Your task to perform on an android device: star an email in the gmail app Image 0: 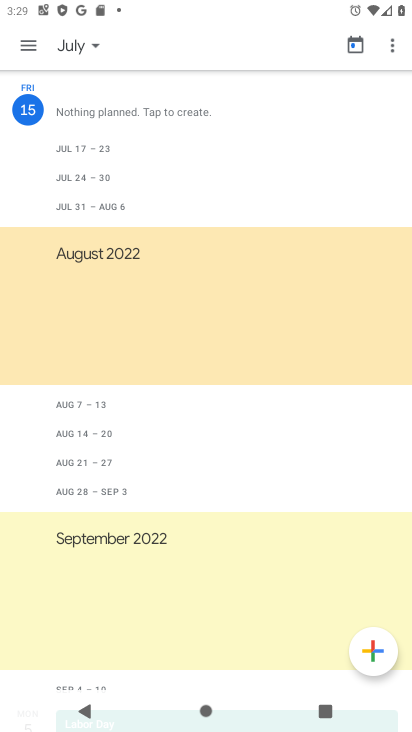
Step 0: press home button
Your task to perform on an android device: star an email in the gmail app Image 1: 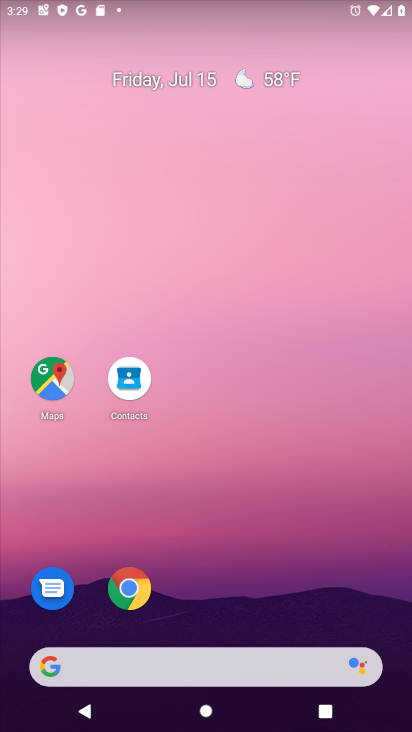
Step 1: drag from (246, 616) to (213, 141)
Your task to perform on an android device: star an email in the gmail app Image 2: 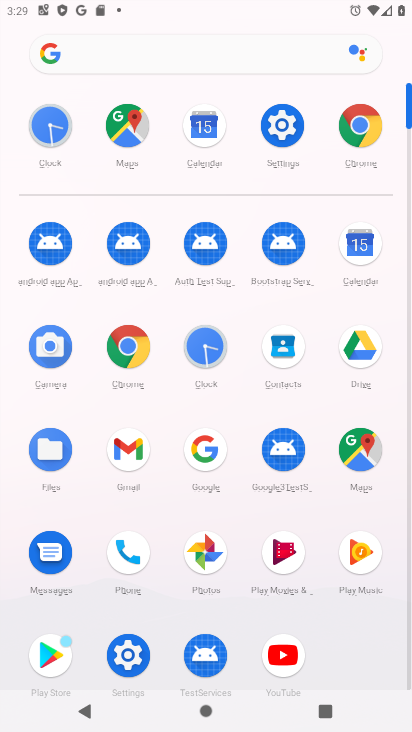
Step 2: click (136, 449)
Your task to perform on an android device: star an email in the gmail app Image 3: 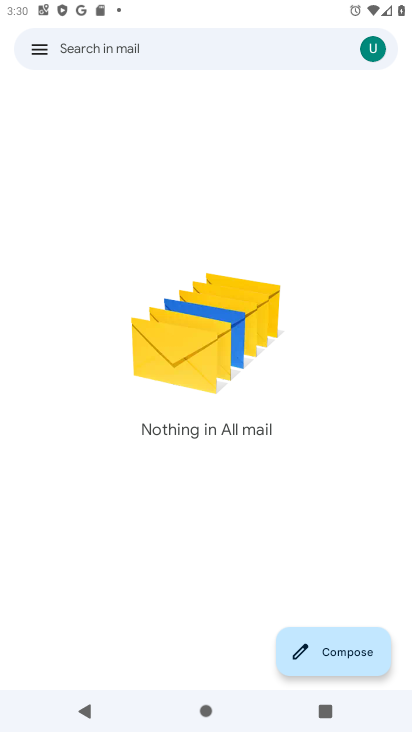
Step 3: click (42, 48)
Your task to perform on an android device: star an email in the gmail app Image 4: 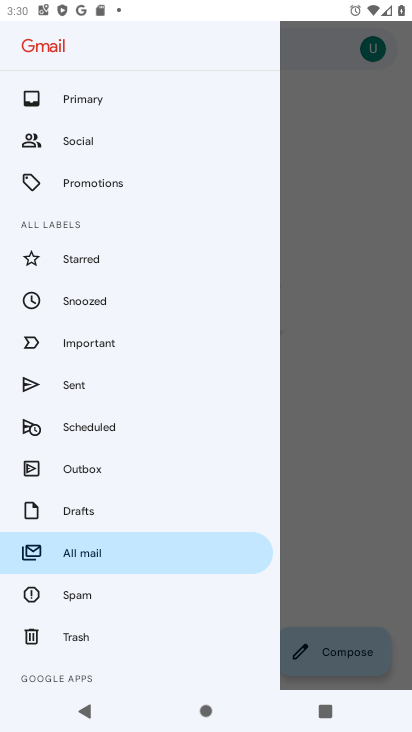
Step 4: click (159, 263)
Your task to perform on an android device: star an email in the gmail app Image 5: 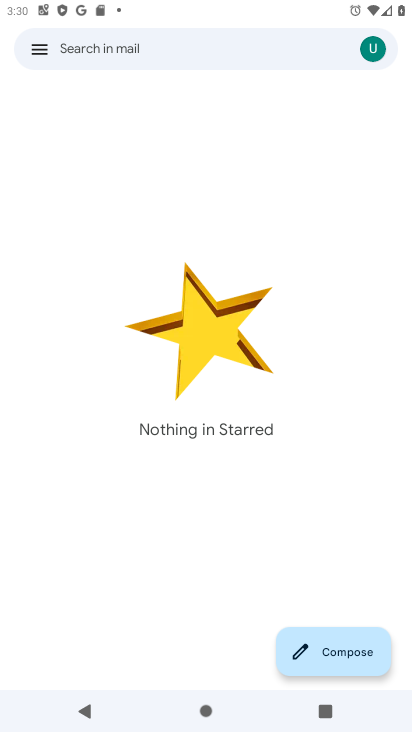
Step 5: task complete